Your task to perform on an android device: Search for alienware aurora on amazon, select the first entry, add it to the cart, then select checkout. Image 0: 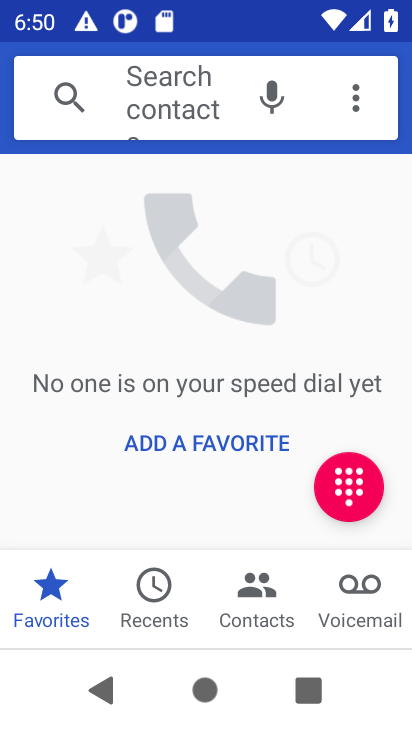
Step 0: press home button
Your task to perform on an android device: Search for alienware aurora on amazon, select the first entry, add it to the cart, then select checkout. Image 1: 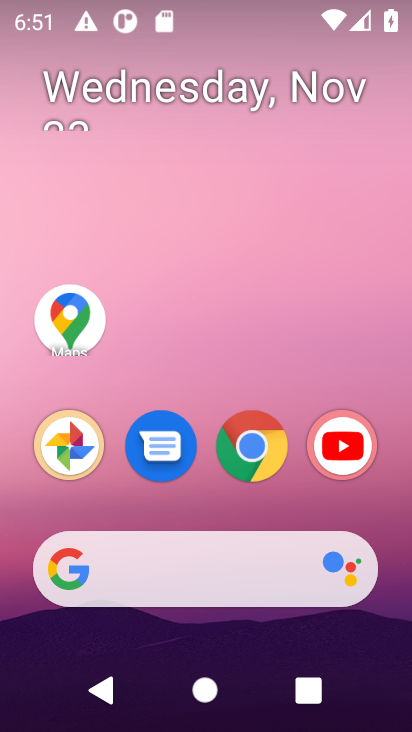
Step 1: click (170, 567)
Your task to perform on an android device: Search for alienware aurora on amazon, select the first entry, add it to the cart, then select checkout. Image 2: 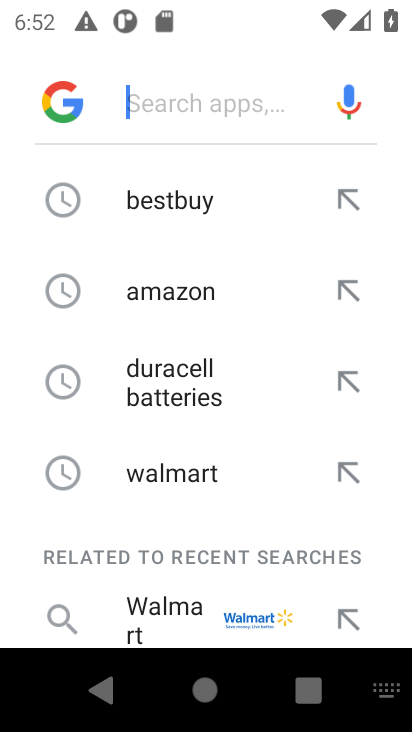
Step 2: type "alienware aurora"
Your task to perform on an android device: Search for alienware aurora on amazon, select the first entry, add it to the cart, then select checkout. Image 3: 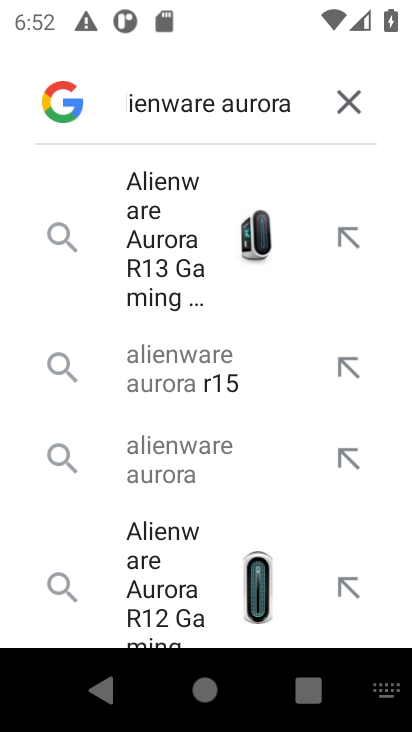
Step 3: click (233, 220)
Your task to perform on an android device: Search for alienware aurora on amazon, select the first entry, add it to the cart, then select checkout. Image 4: 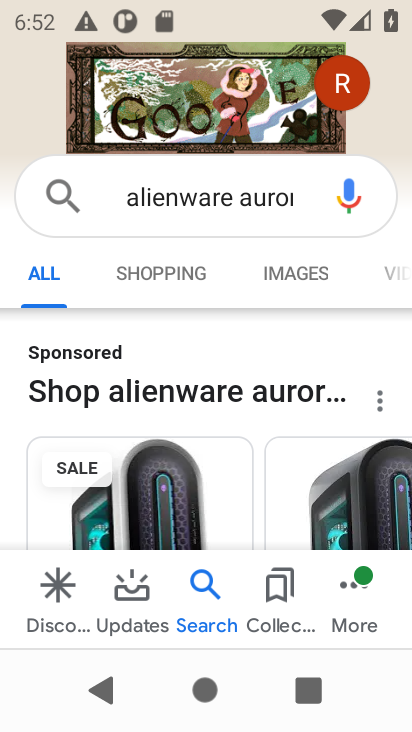
Step 4: click (180, 463)
Your task to perform on an android device: Search for alienware aurora on amazon, select the first entry, add it to the cart, then select checkout. Image 5: 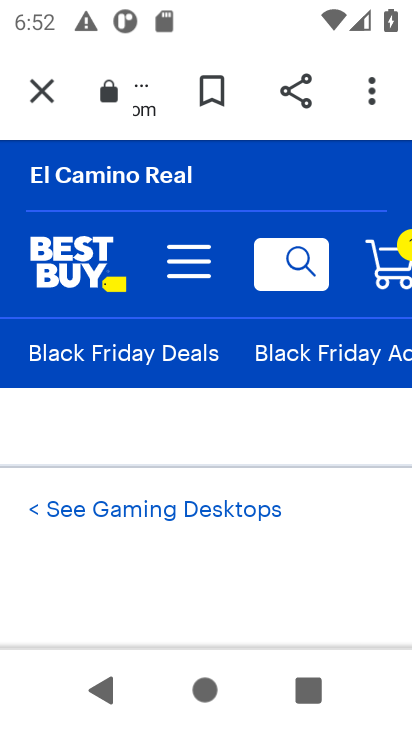
Step 5: task complete